Your task to perform on an android device: allow notifications from all sites in the chrome app Image 0: 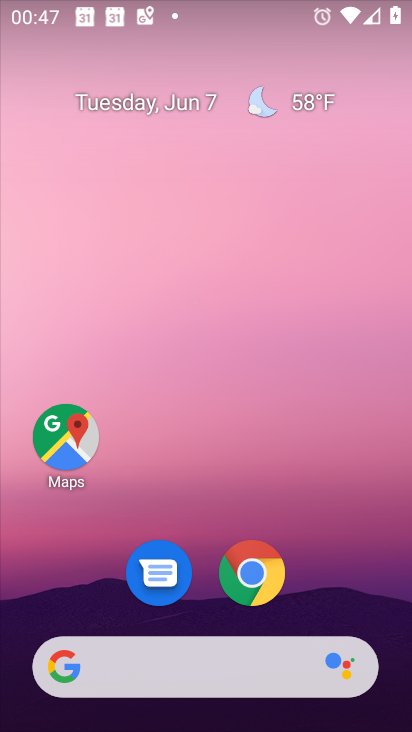
Step 0: press home button
Your task to perform on an android device: allow notifications from all sites in the chrome app Image 1: 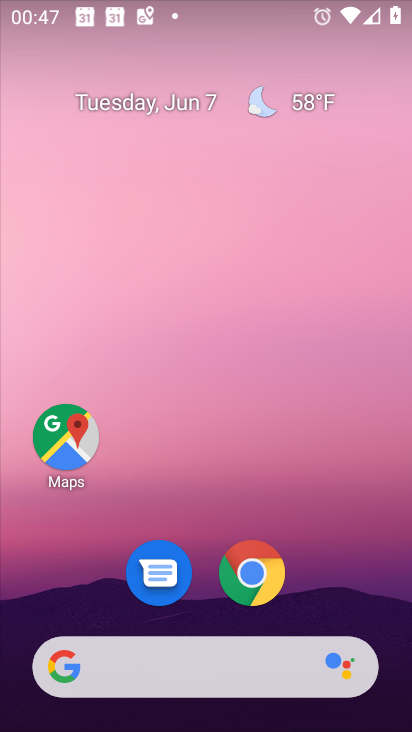
Step 1: click (275, 158)
Your task to perform on an android device: allow notifications from all sites in the chrome app Image 2: 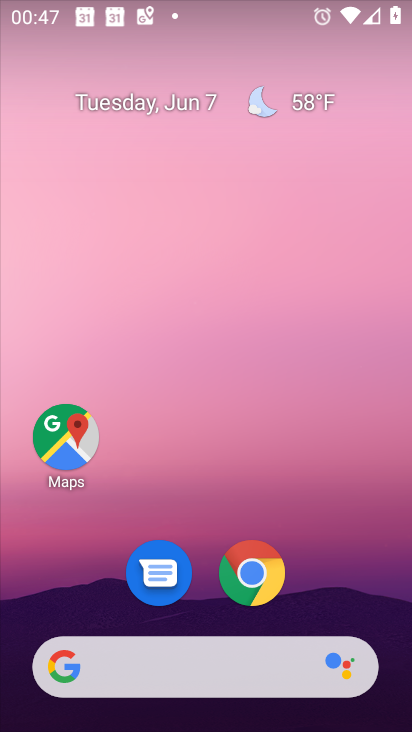
Step 2: drag from (369, 612) to (321, 2)
Your task to perform on an android device: allow notifications from all sites in the chrome app Image 3: 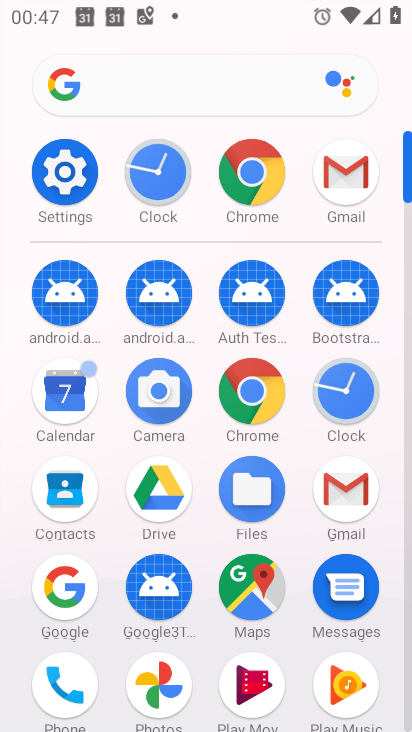
Step 3: click (253, 179)
Your task to perform on an android device: allow notifications from all sites in the chrome app Image 4: 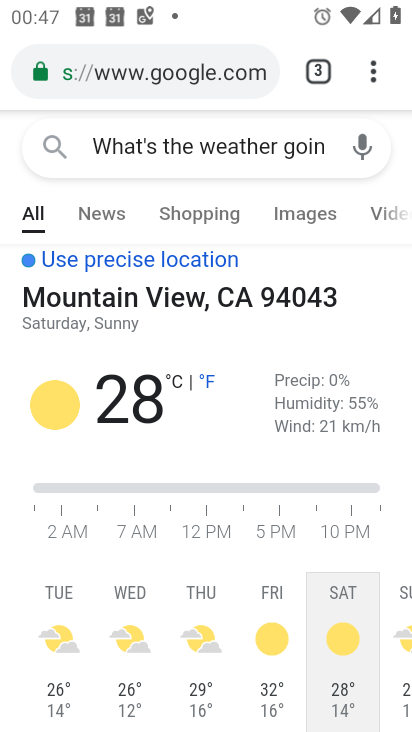
Step 4: drag from (373, 79) to (127, 587)
Your task to perform on an android device: allow notifications from all sites in the chrome app Image 5: 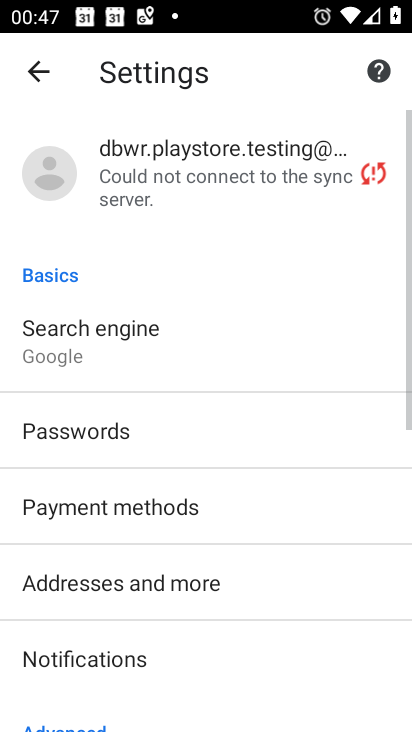
Step 5: drag from (238, 710) to (211, 201)
Your task to perform on an android device: allow notifications from all sites in the chrome app Image 6: 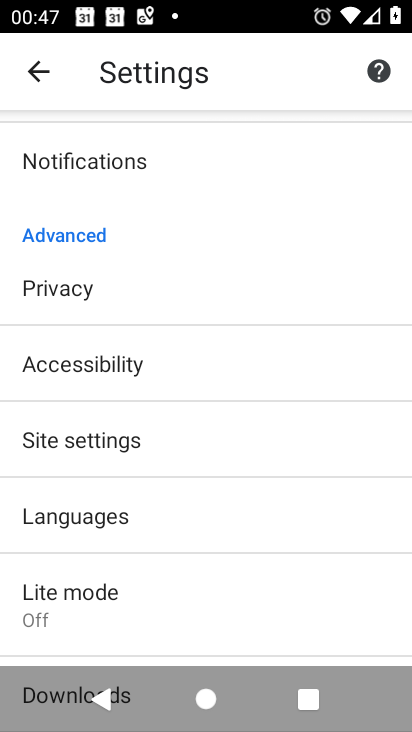
Step 6: click (170, 446)
Your task to perform on an android device: allow notifications from all sites in the chrome app Image 7: 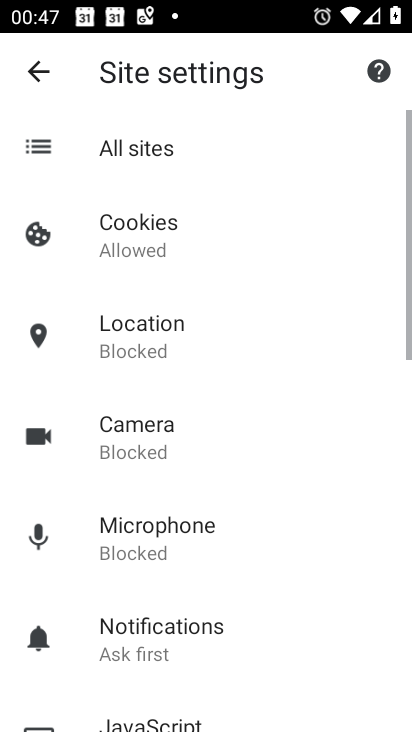
Step 7: click (146, 144)
Your task to perform on an android device: allow notifications from all sites in the chrome app Image 8: 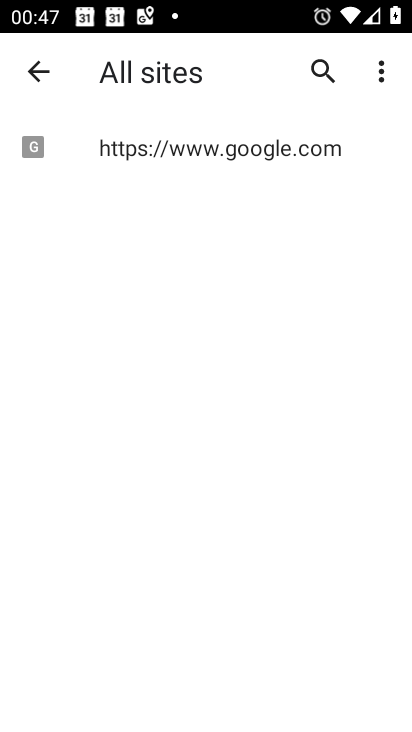
Step 8: click (153, 157)
Your task to perform on an android device: allow notifications from all sites in the chrome app Image 9: 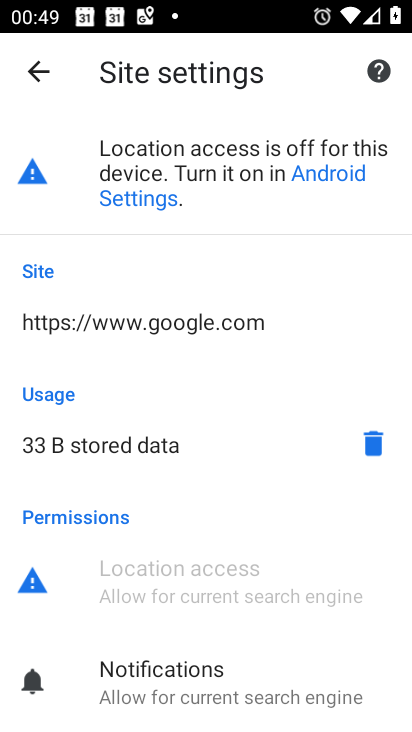
Step 9: click (157, 696)
Your task to perform on an android device: allow notifications from all sites in the chrome app Image 10: 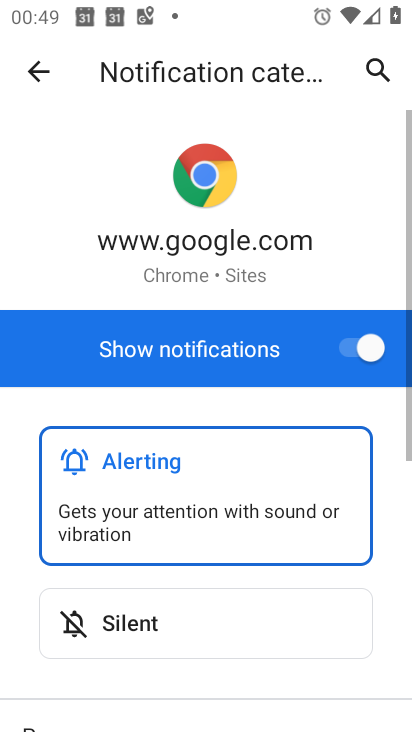
Step 10: task complete